Your task to perform on an android device: Go to settings Image 0: 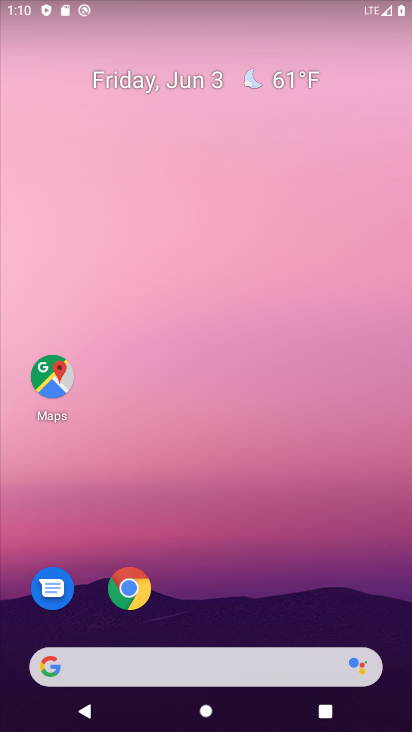
Step 0: drag from (238, 608) to (258, 169)
Your task to perform on an android device: Go to settings Image 1: 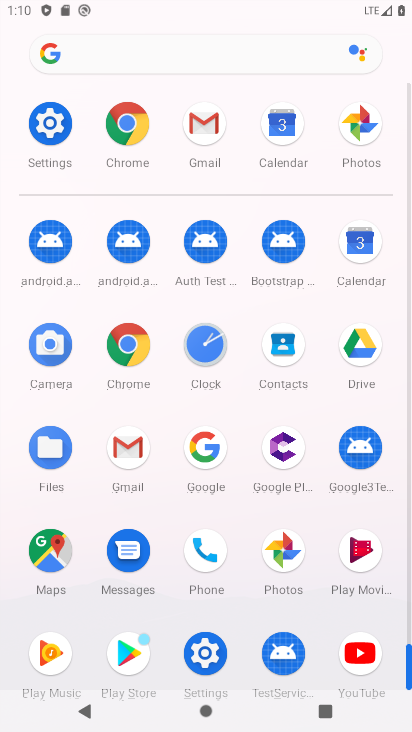
Step 1: drag from (229, 40) to (234, 2)
Your task to perform on an android device: Go to settings Image 2: 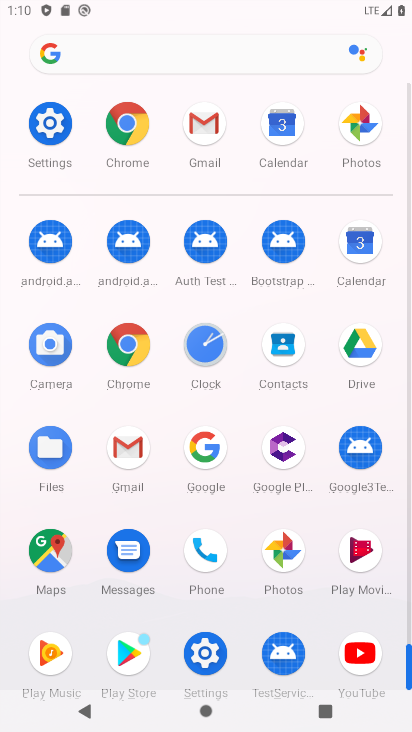
Step 2: click (211, 657)
Your task to perform on an android device: Go to settings Image 3: 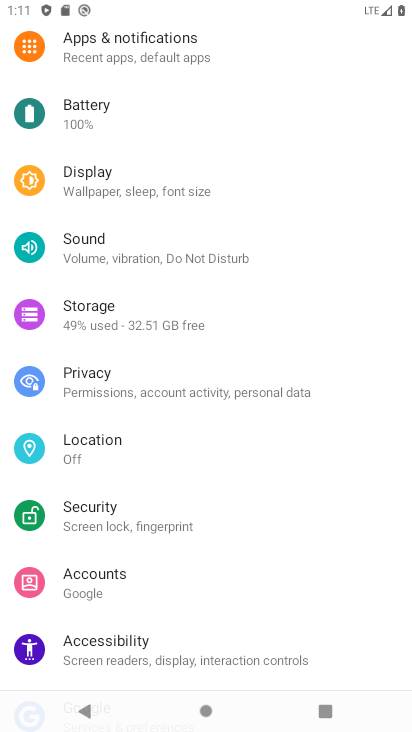
Step 3: task complete